Your task to perform on an android device: delete the emails in spam in the gmail app Image 0: 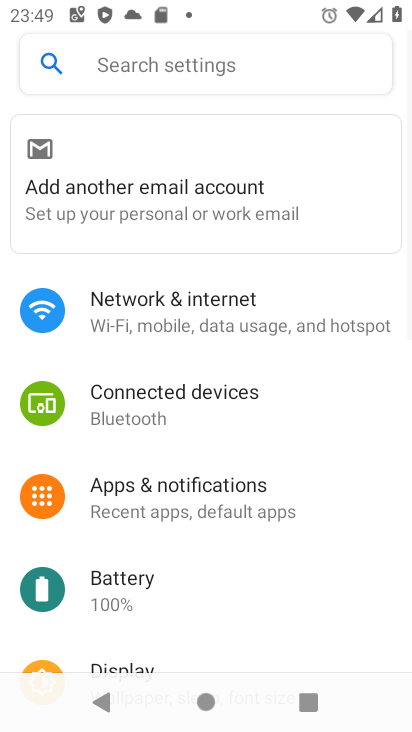
Step 0: press home button
Your task to perform on an android device: delete the emails in spam in the gmail app Image 1: 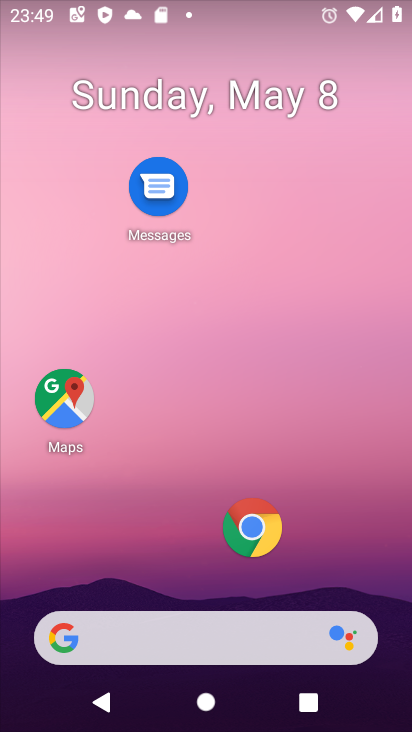
Step 1: drag from (174, 557) to (273, 138)
Your task to perform on an android device: delete the emails in spam in the gmail app Image 2: 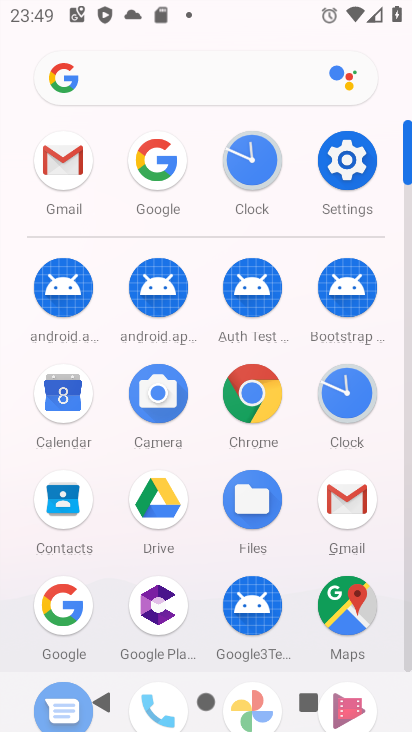
Step 2: click (337, 500)
Your task to perform on an android device: delete the emails in spam in the gmail app Image 3: 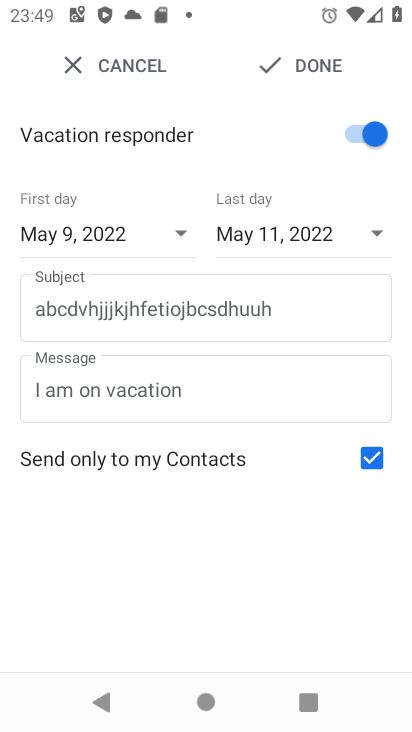
Step 3: press back button
Your task to perform on an android device: delete the emails in spam in the gmail app Image 4: 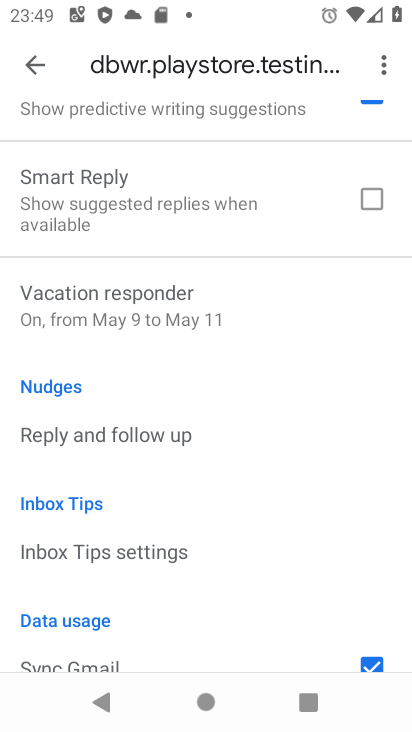
Step 4: press back button
Your task to perform on an android device: delete the emails in spam in the gmail app Image 5: 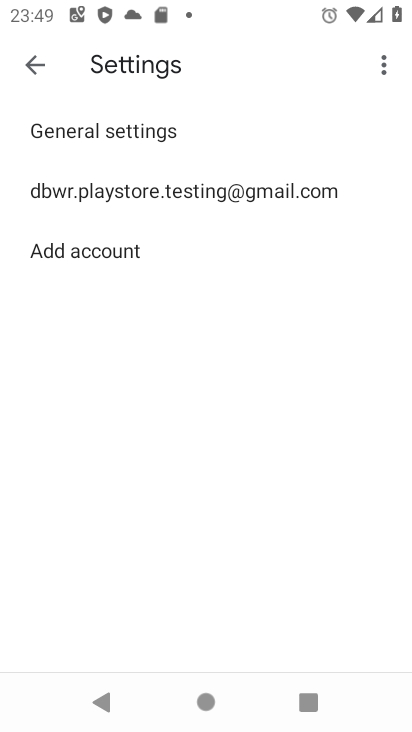
Step 5: press back button
Your task to perform on an android device: delete the emails in spam in the gmail app Image 6: 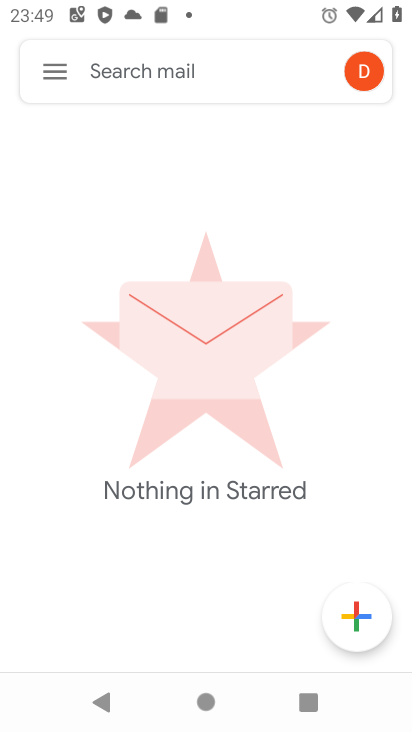
Step 6: click (65, 73)
Your task to perform on an android device: delete the emails in spam in the gmail app Image 7: 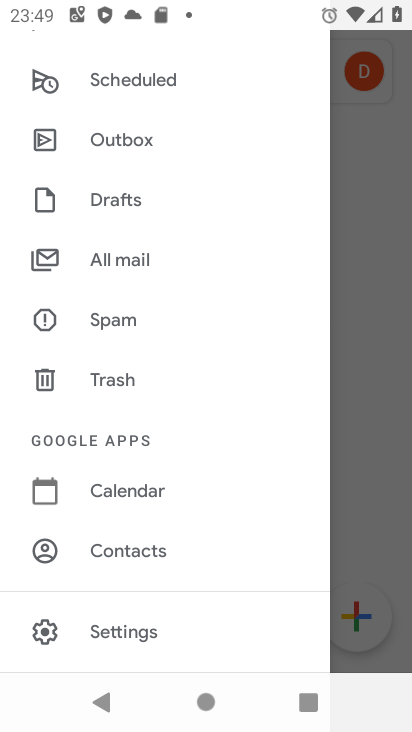
Step 7: click (90, 311)
Your task to perform on an android device: delete the emails in spam in the gmail app Image 8: 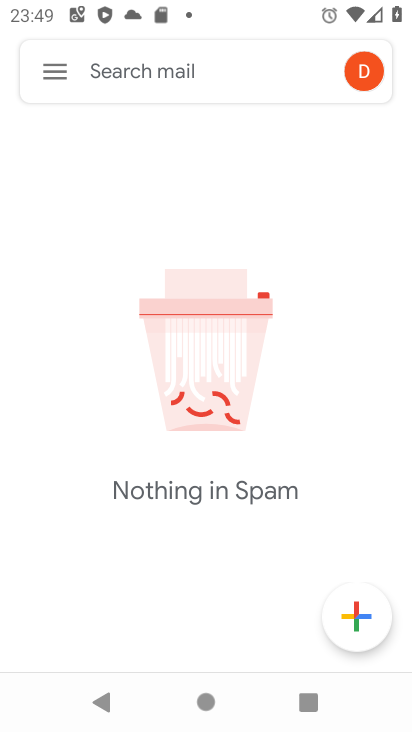
Step 8: task complete